Your task to perform on an android device: Go to location settings Image 0: 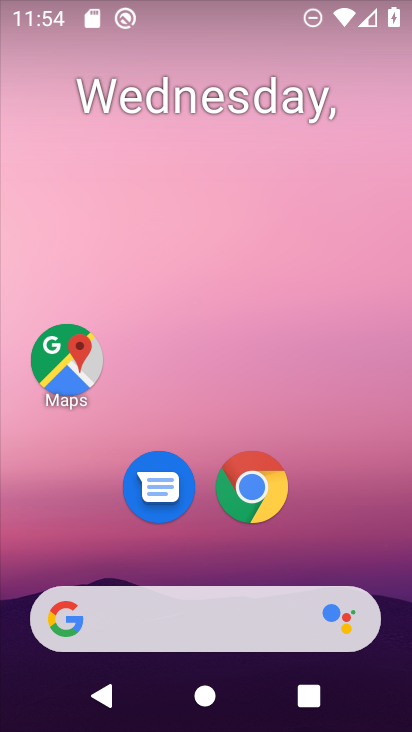
Step 0: drag from (343, 500) to (244, 55)
Your task to perform on an android device: Go to location settings Image 1: 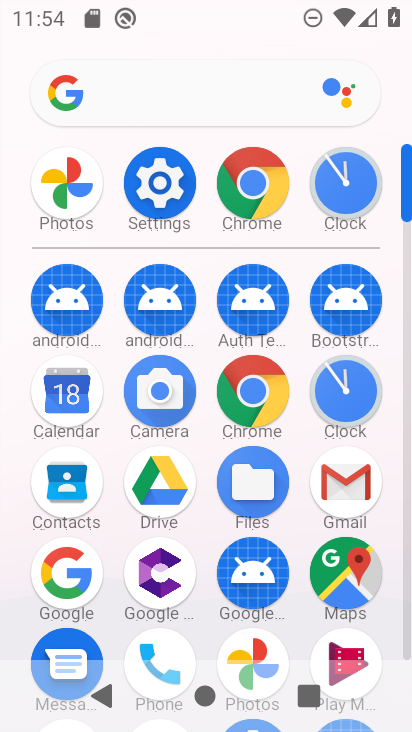
Step 1: click (155, 179)
Your task to perform on an android device: Go to location settings Image 2: 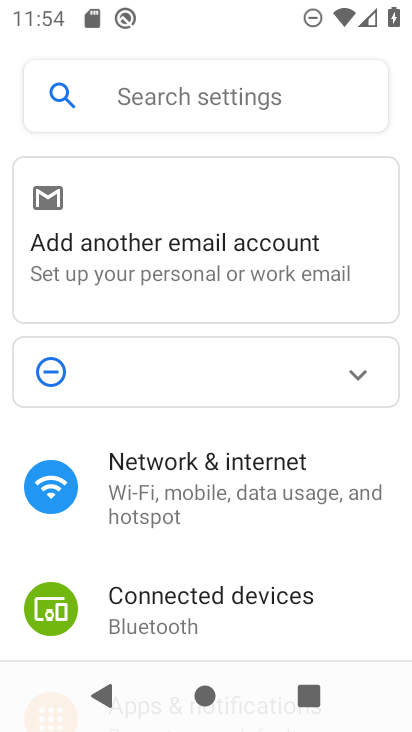
Step 2: drag from (258, 531) to (210, 99)
Your task to perform on an android device: Go to location settings Image 3: 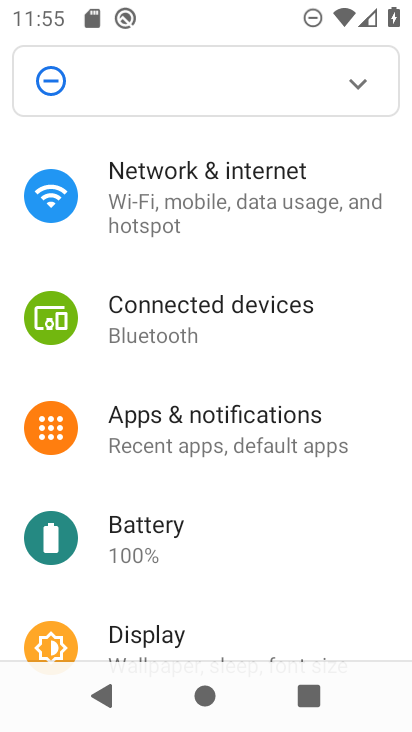
Step 3: drag from (236, 347) to (236, 231)
Your task to perform on an android device: Go to location settings Image 4: 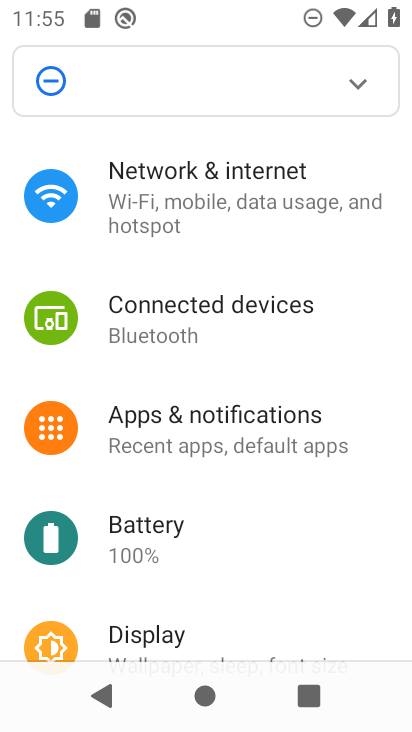
Step 4: drag from (224, 492) to (172, 232)
Your task to perform on an android device: Go to location settings Image 5: 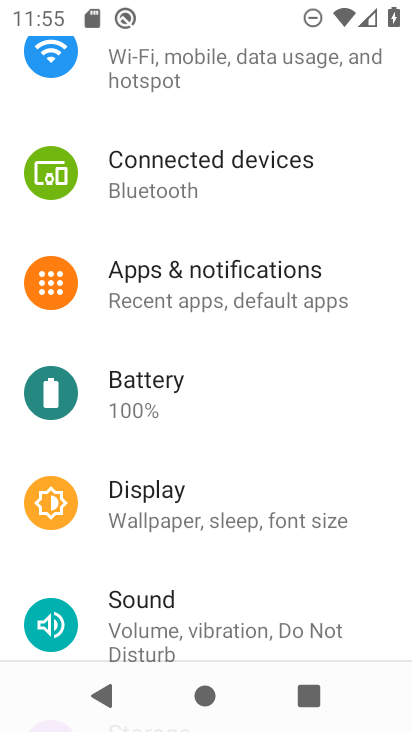
Step 5: drag from (227, 548) to (193, 160)
Your task to perform on an android device: Go to location settings Image 6: 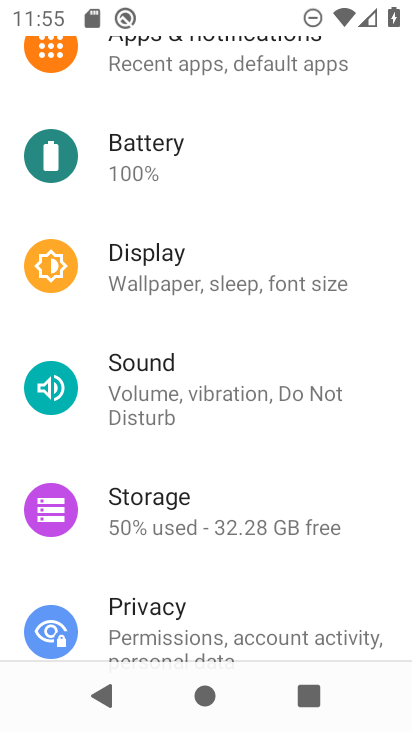
Step 6: drag from (200, 450) to (156, 141)
Your task to perform on an android device: Go to location settings Image 7: 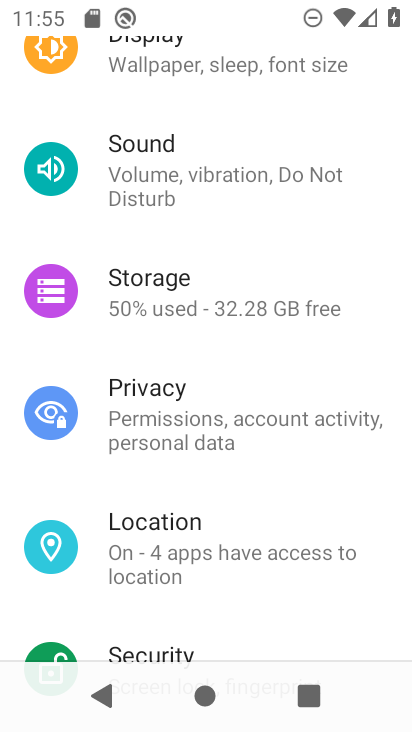
Step 7: click (162, 507)
Your task to perform on an android device: Go to location settings Image 8: 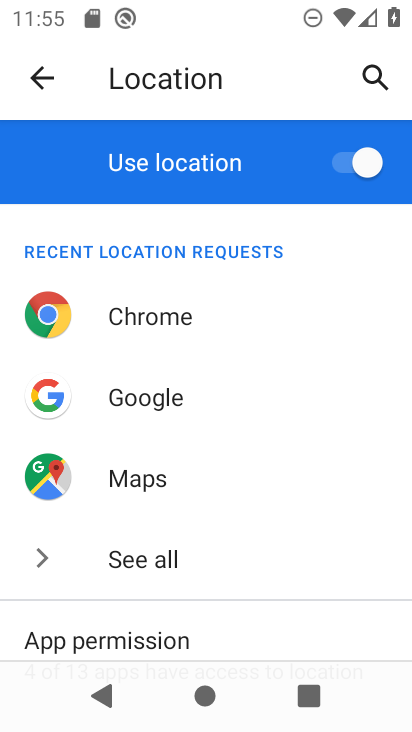
Step 8: task complete